Your task to perform on an android device: turn off location Image 0: 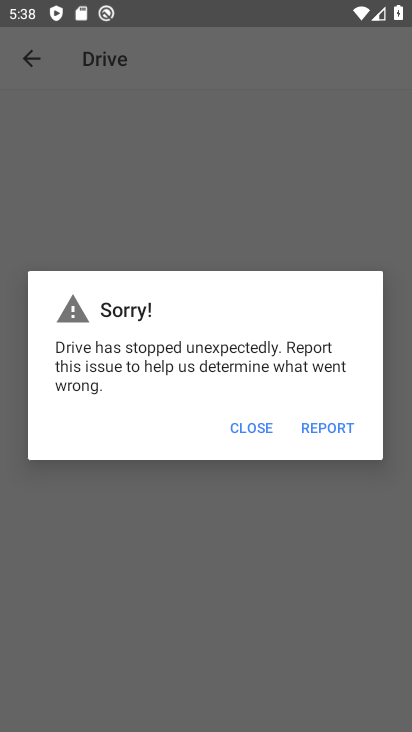
Step 0: click (254, 425)
Your task to perform on an android device: turn off location Image 1: 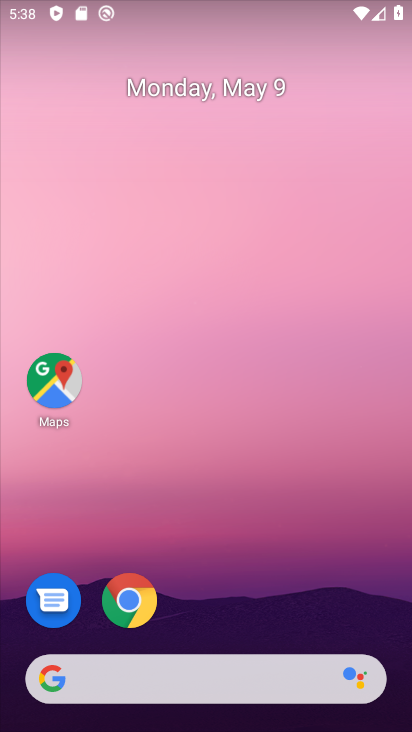
Step 1: drag from (212, 586) to (247, 122)
Your task to perform on an android device: turn off location Image 2: 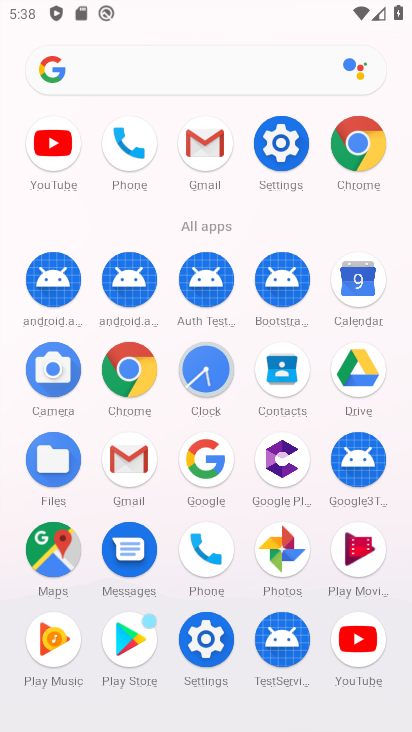
Step 2: click (282, 156)
Your task to perform on an android device: turn off location Image 3: 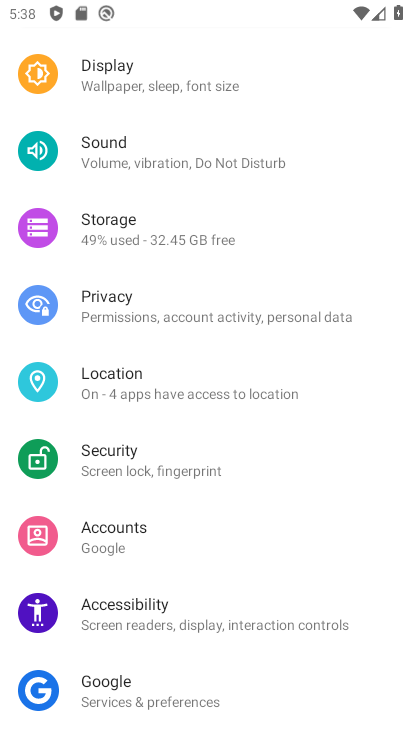
Step 3: click (162, 383)
Your task to perform on an android device: turn off location Image 4: 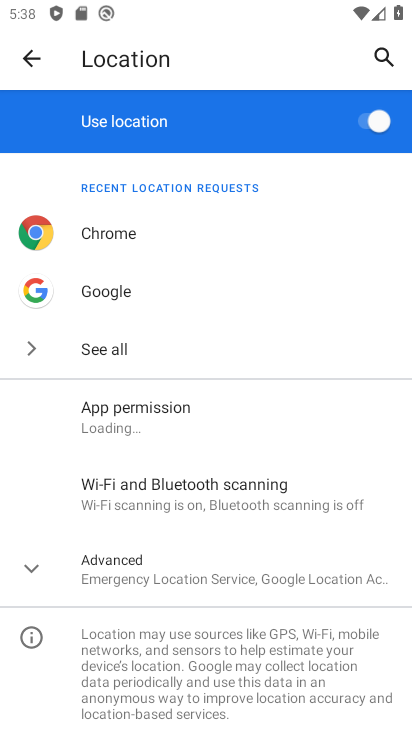
Step 4: click (376, 125)
Your task to perform on an android device: turn off location Image 5: 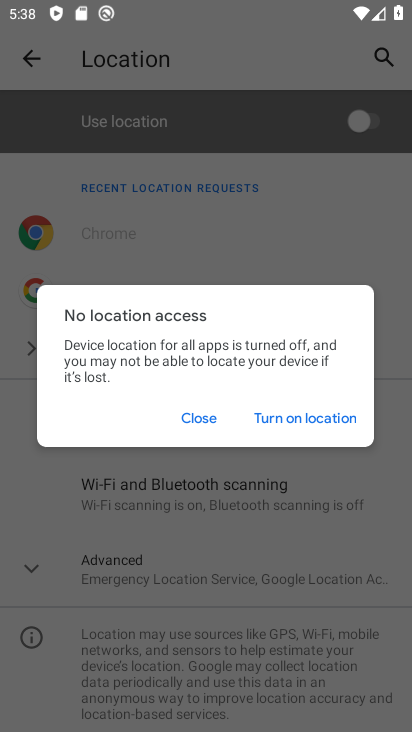
Step 5: click (198, 418)
Your task to perform on an android device: turn off location Image 6: 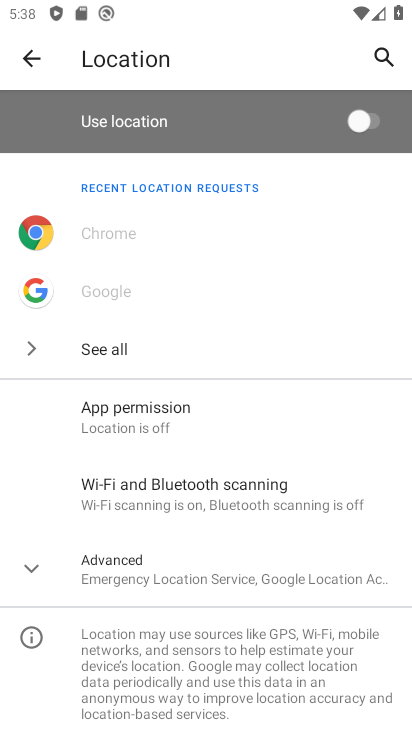
Step 6: task complete